Your task to perform on an android device: open chrome privacy settings Image 0: 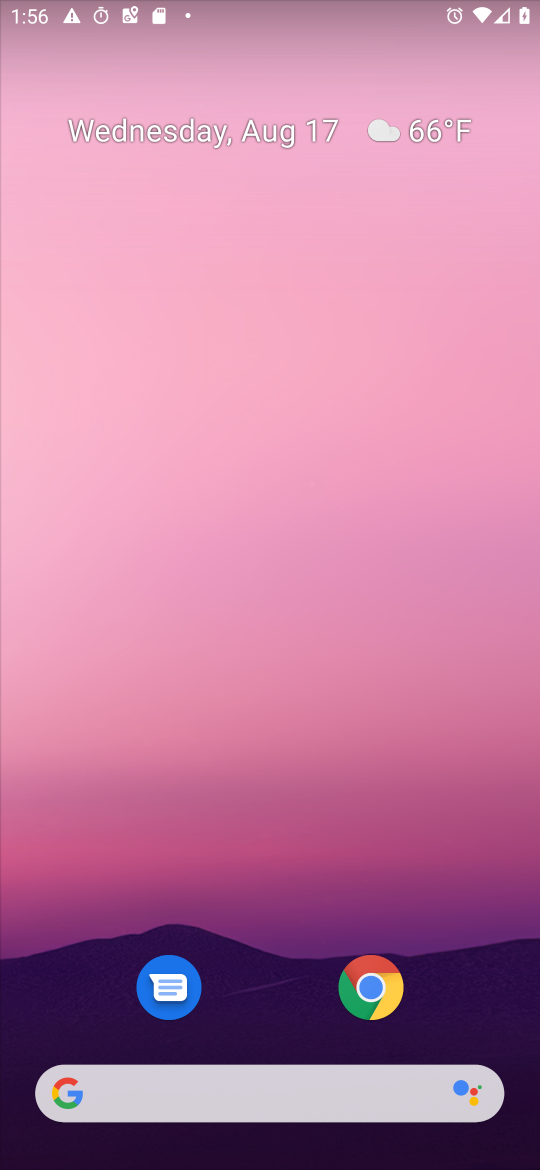
Step 0: click (374, 987)
Your task to perform on an android device: open chrome privacy settings Image 1: 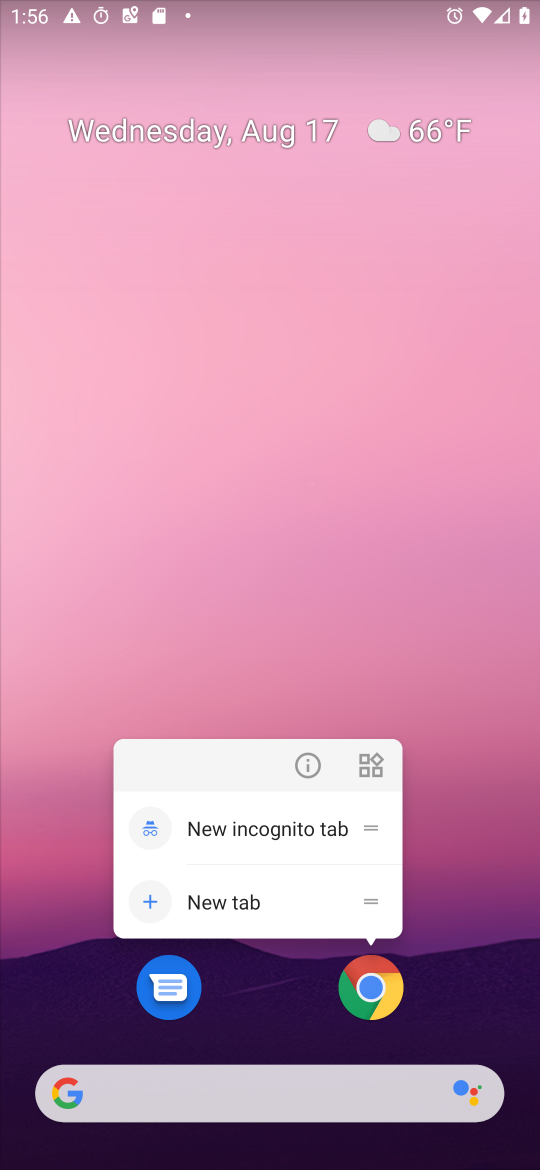
Step 1: click (374, 987)
Your task to perform on an android device: open chrome privacy settings Image 2: 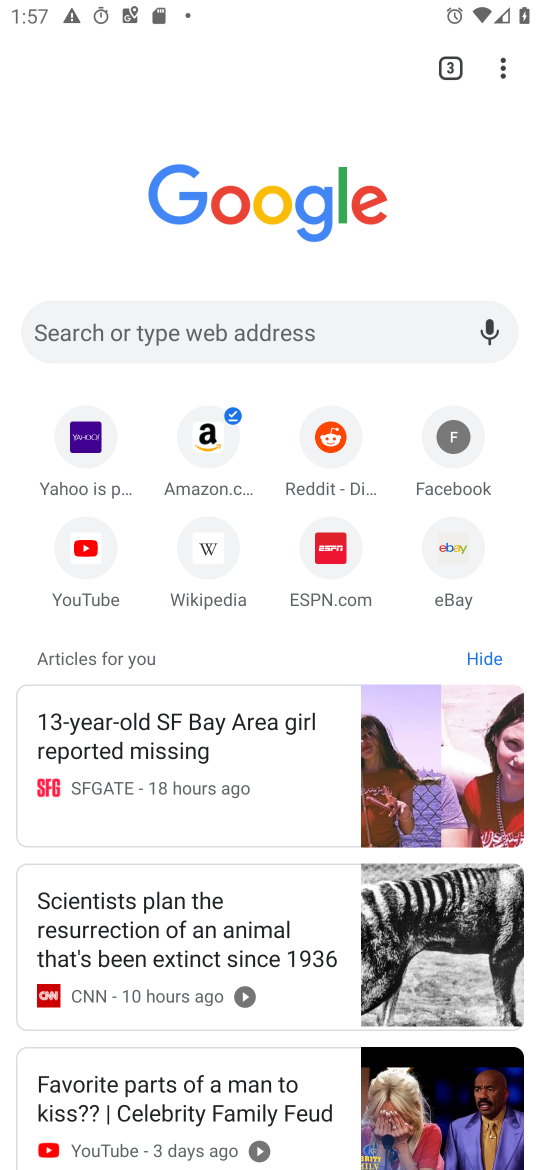
Step 2: click (512, 69)
Your task to perform on an android device: open chrome privacy settings Image 3: 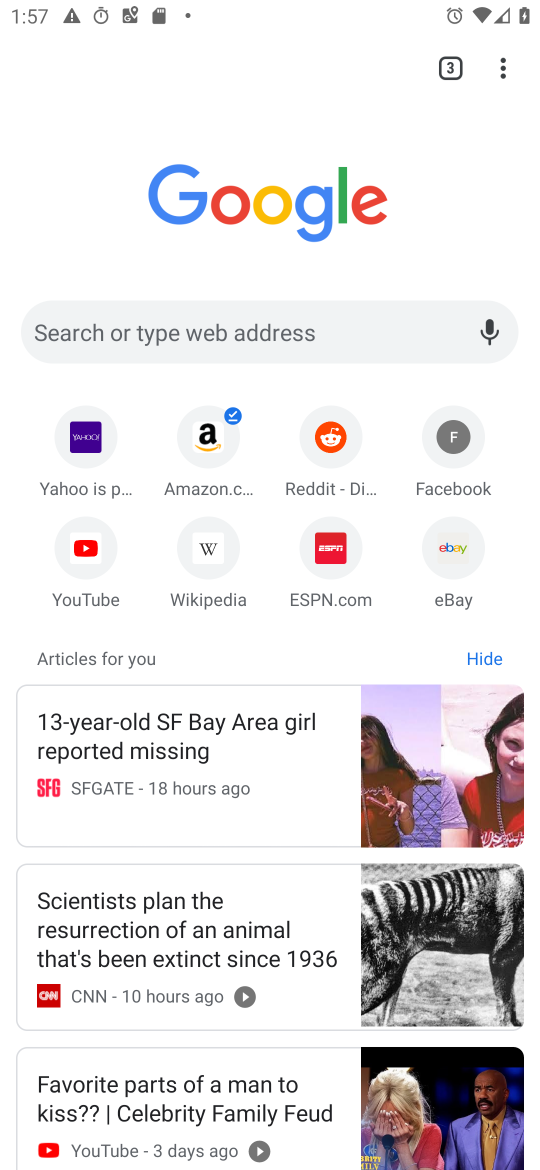
Step 3: click (512, 69)
Your task to perform on an android device: open chrome privacy settings Image 4: 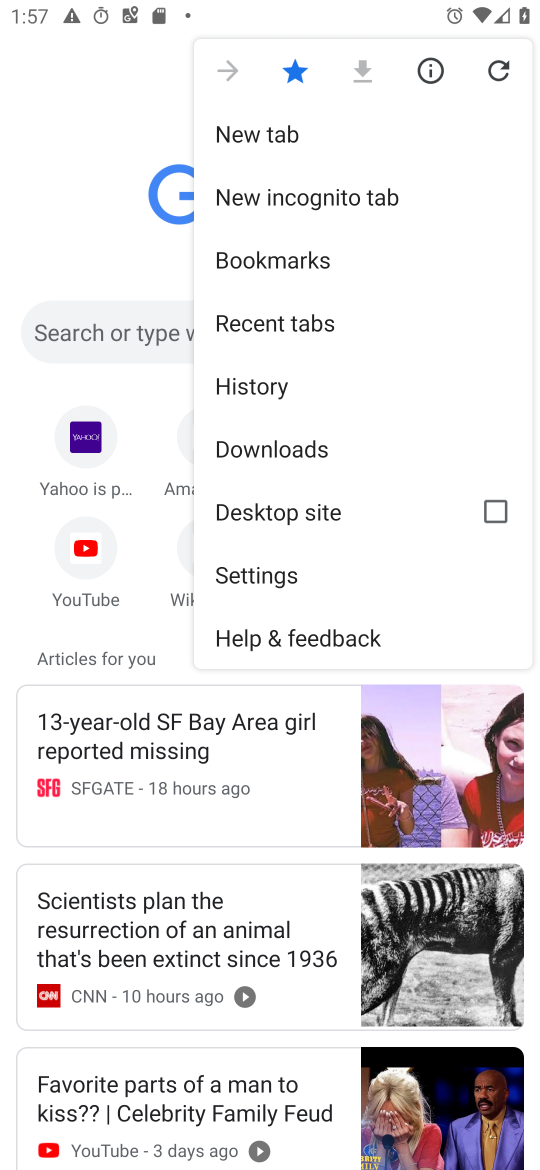
Step 4: task complete